Your task to perform on an android device: check the backup settings in the google photos Image 0: 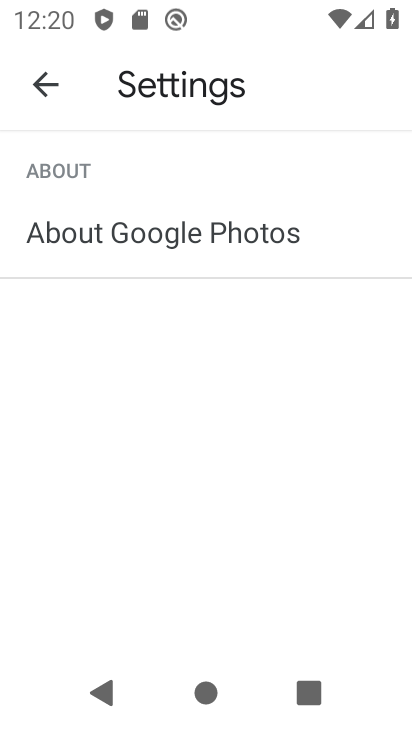
Step 0: press home button
Your task to perform on an android device: check the backup settings in the google photos Image 1: 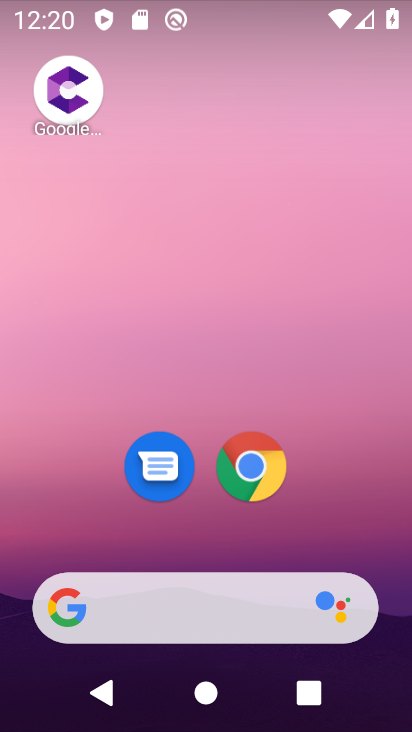
Step 1: drag from (328, 545) to (327, 47)
Your task to perform on an android device: check the backup settings in the google photos Image 2: 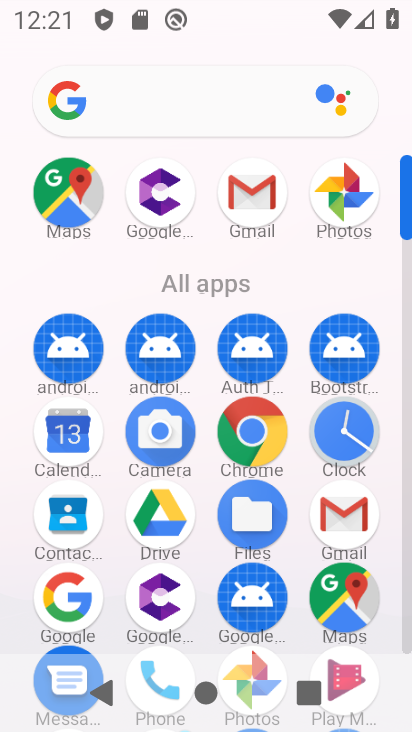
Step 2: drag from (249, 620) to (284, 369)
Your task to perform on an android device: check the backup settings in the google photos Image 3: 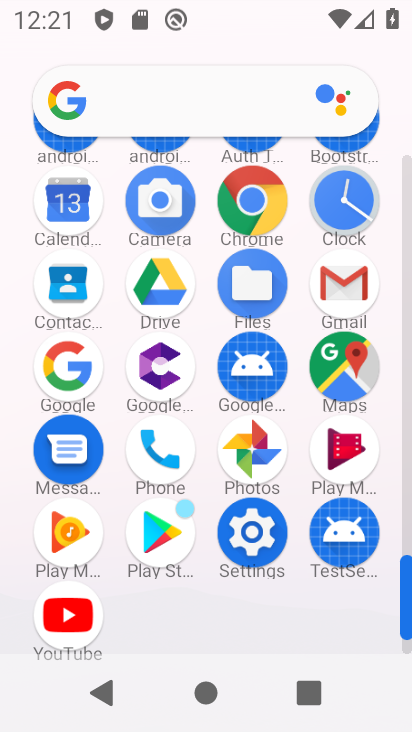
Step 3: click (262, 457)
Your task to perform on an android device: check the backup settings in the google photos Image 4: 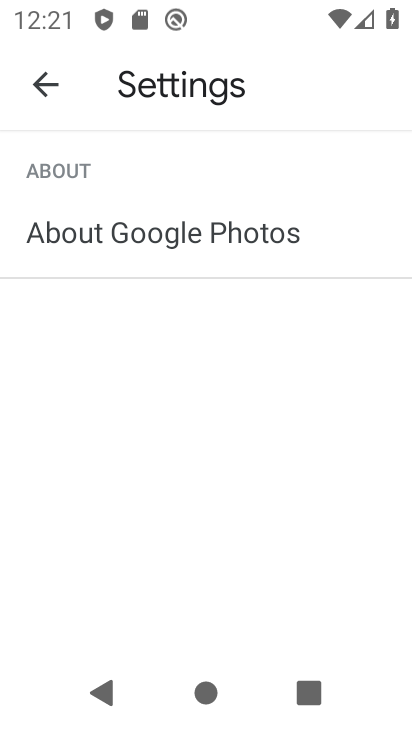
Step 4: click (50, 93)
Your task to perform on an android device: check the backup settings in the google photos Image 5: 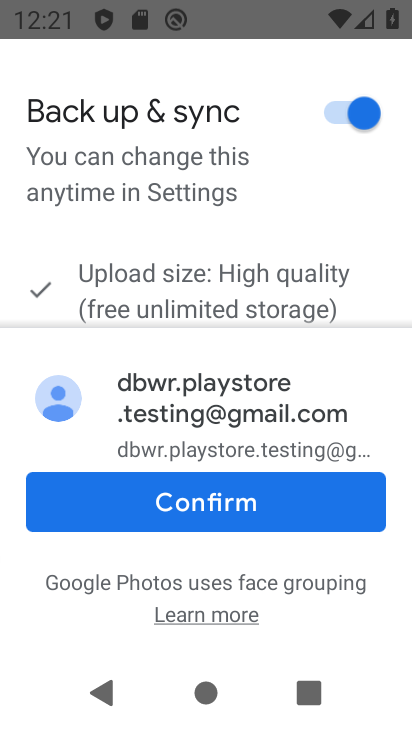
Step 5: click (177, 488)
Your task to perform on an android device: check the backup settings in the google photos Image 6: 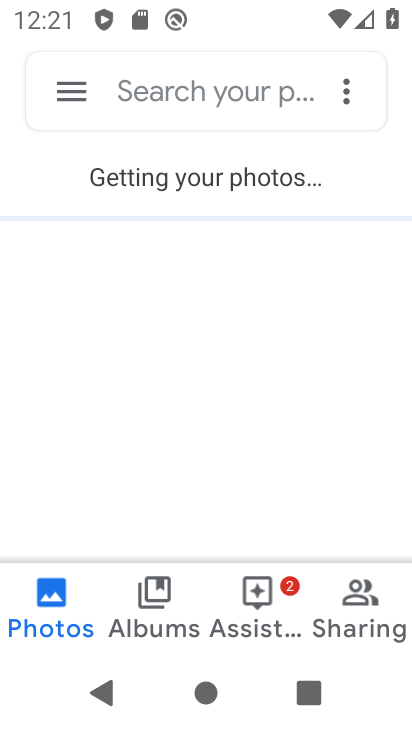
Step 6: click (71, 84)
Your task to perform on an android device: check the backup settings in the google photos Image 7: 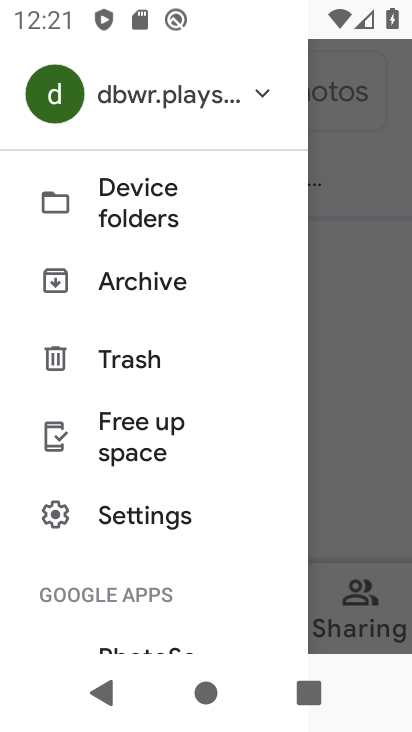
Step 7: click (187, 516)
Your task to perform on an android device: check the backup settings in the google photos Image 8: 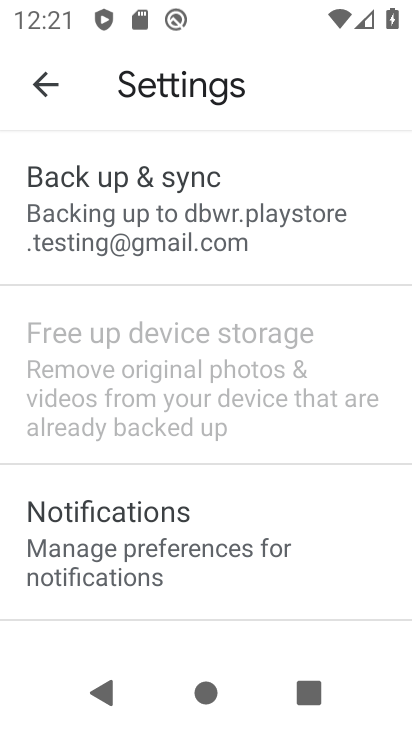
Step 8: click (160, 213)
Your task to perform on an android device: check the backup settings in the google photos Image 9: 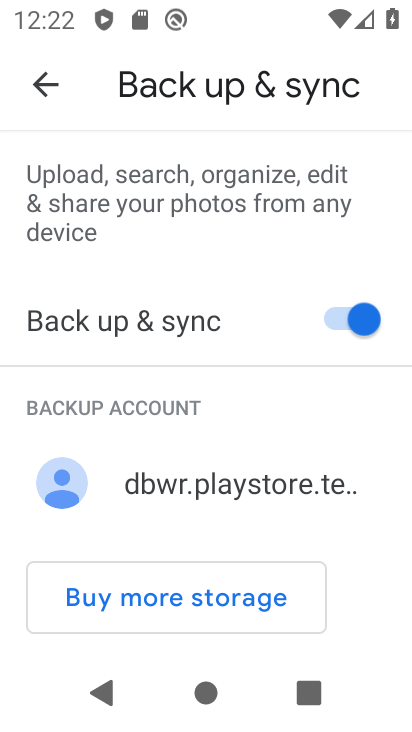
Step 9: task complete